Your task to perform on an android device: Add "logitech g pro" to the cart on bestbuy.com Image 0: 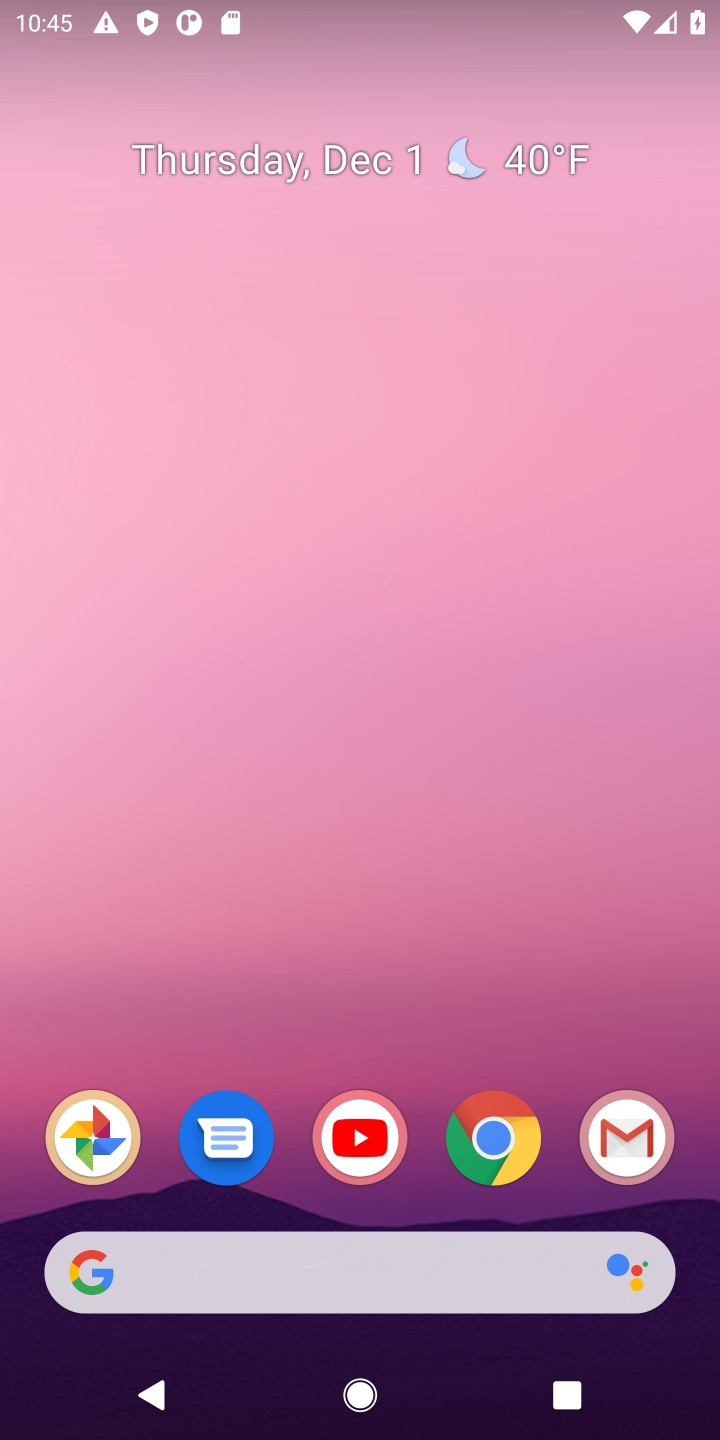
Step 0: drag from (407, 1144) to (355, 602)
Your task to perform on an android device: Add "logitech g pro" to the cart on bestbuy.com Image 1: 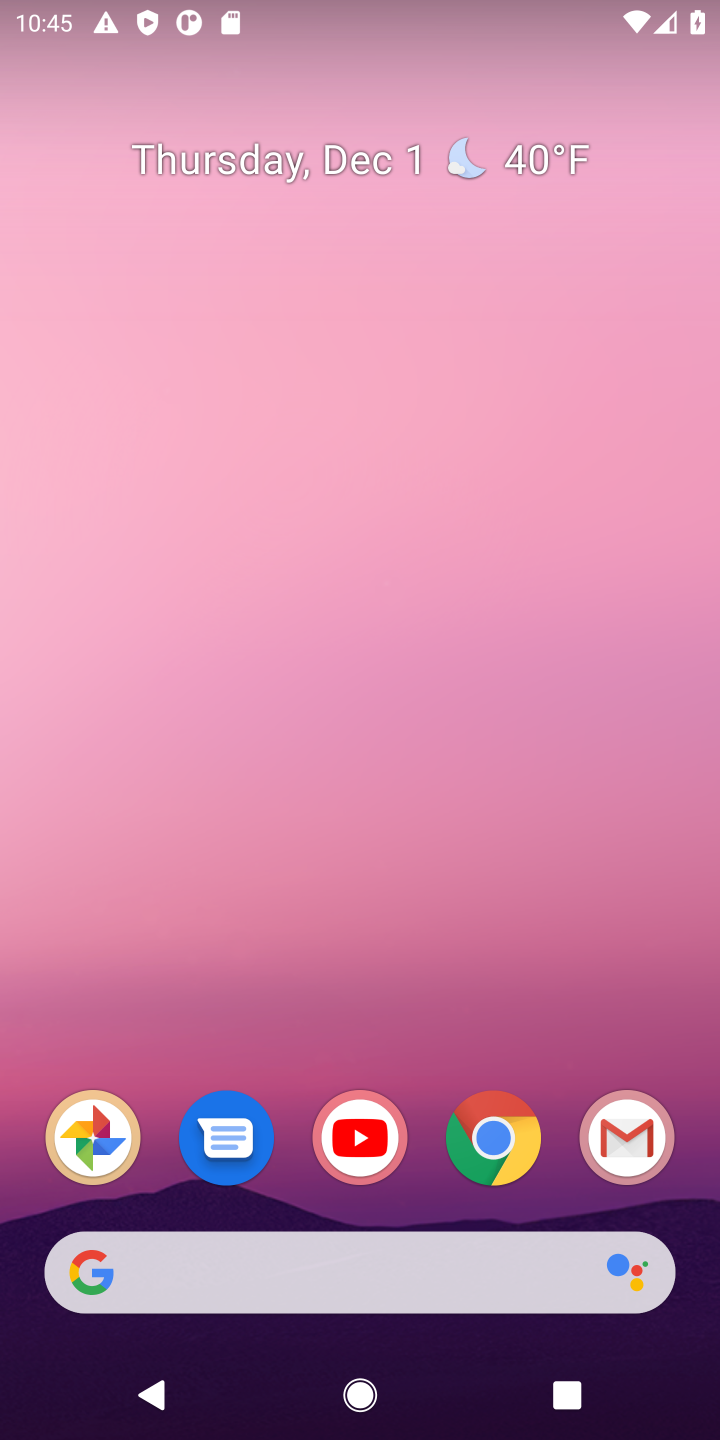
Step 1: click (516, 1140)
Your task to perform on an android device: Add "logitech g pro" to the cart on bestbuy.com Image 2: 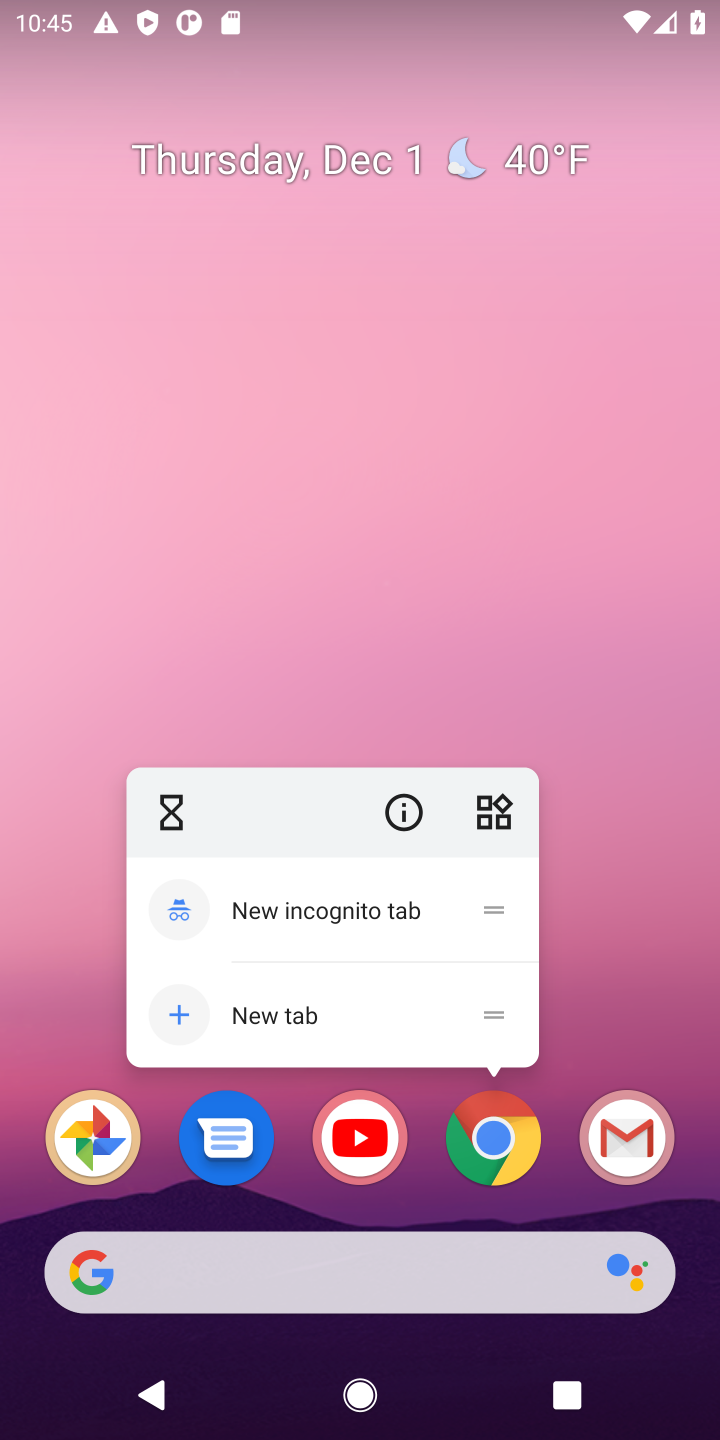
Step 2: click (484, 1148)
Your task to perform on an android device: Add "logitech g pro" to the cart on bestbuy.com Image 3: 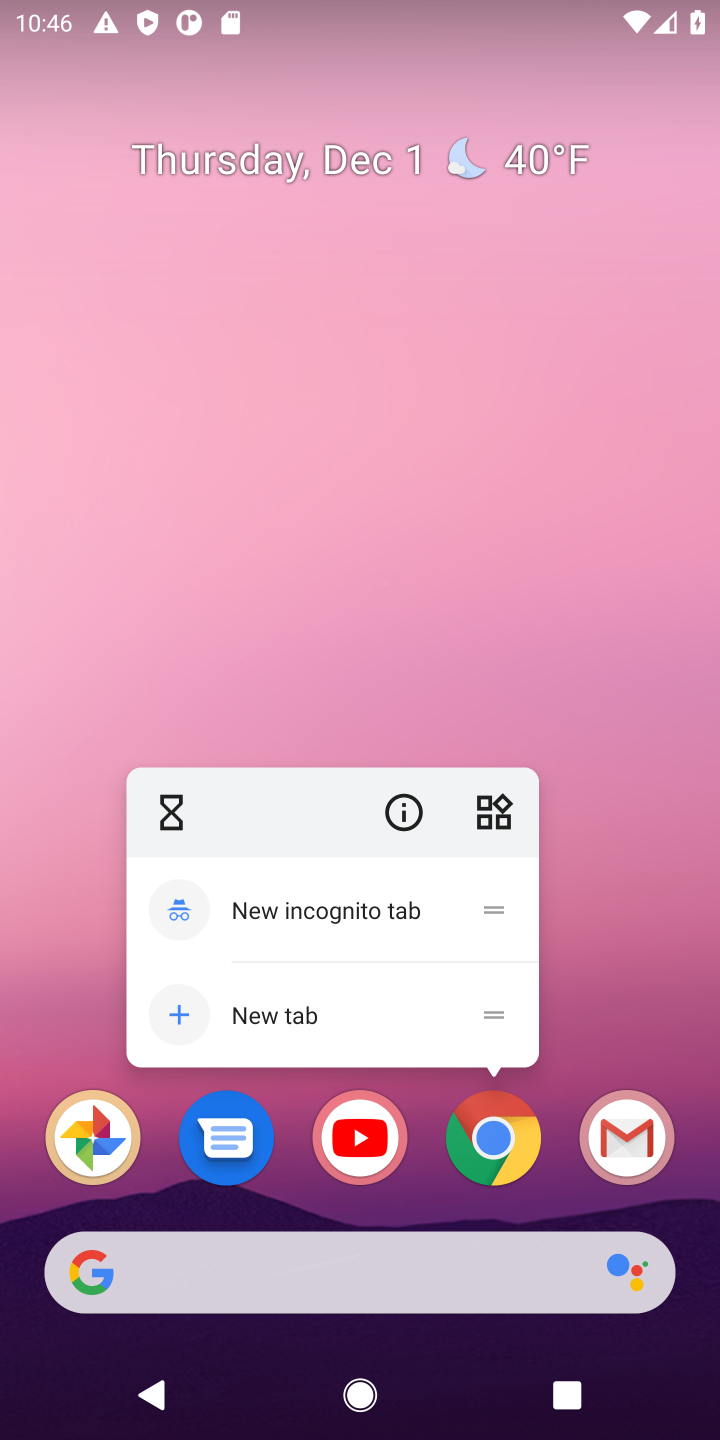
Step 3: click (484, 1148)
Your task to perform on an android device: Add "logitech g pro" to the cart on bestbuy.com Image 4: 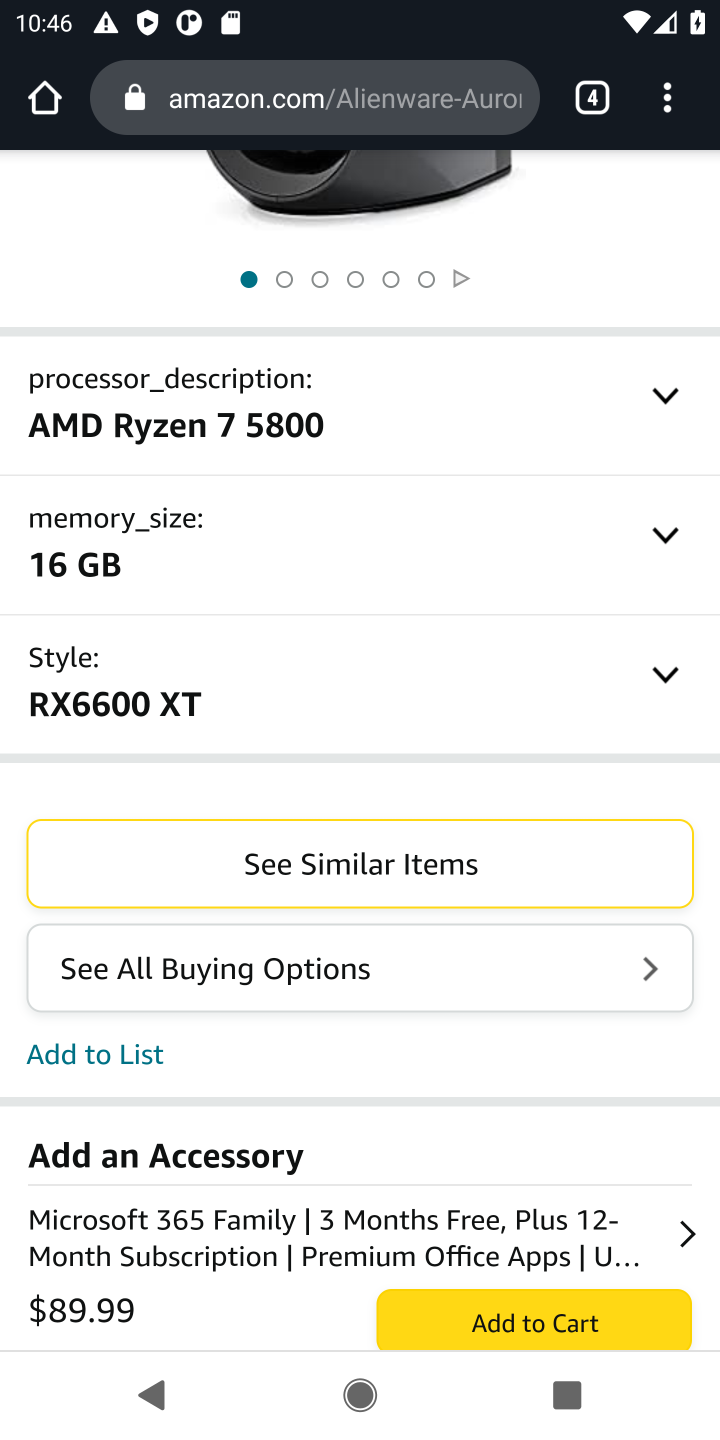
Step 4: click (280, 107)
Your task to perform on an android device: Add "logitech g pro" to the cart on bestbuy.com Image 5: 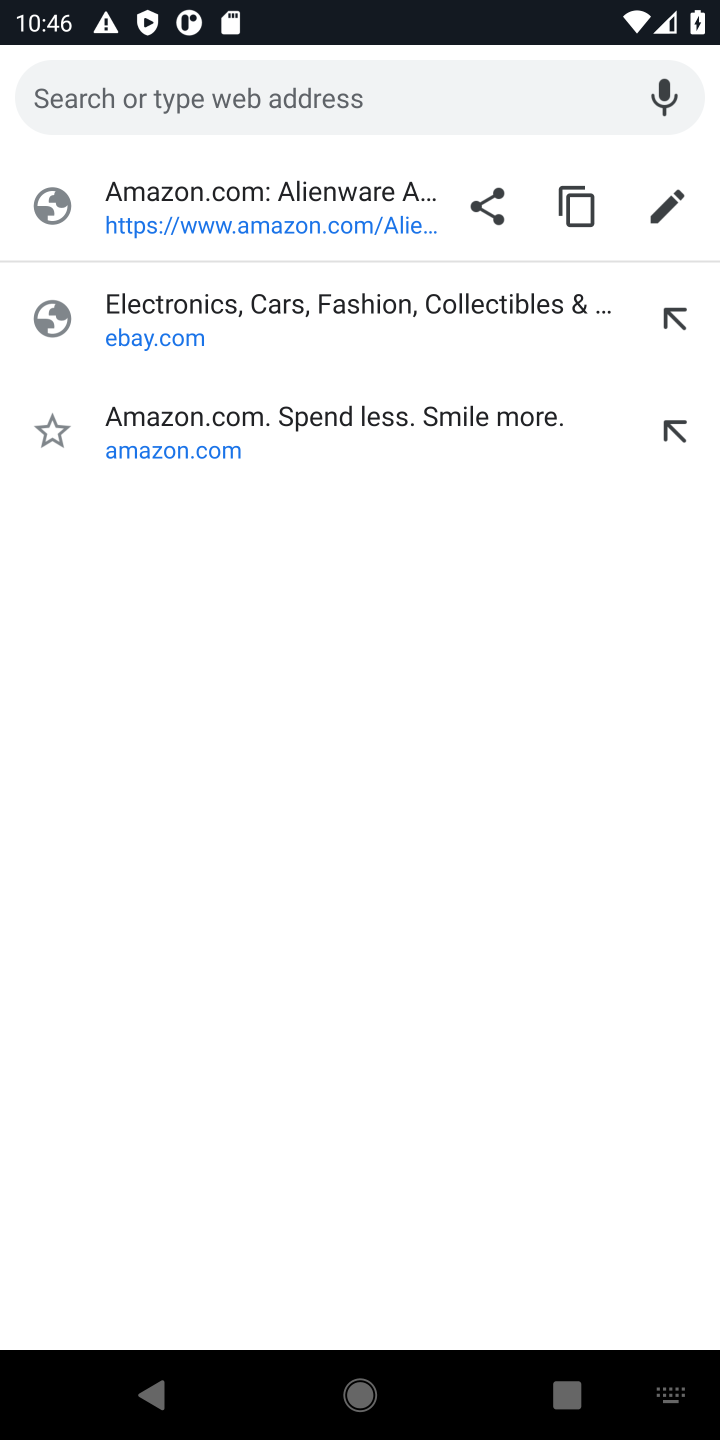
Step 5: type "bestbuy.com"
Your task to perform on an android device: Add "logitech g pro" to the cart on bestbuy.com Image 6: 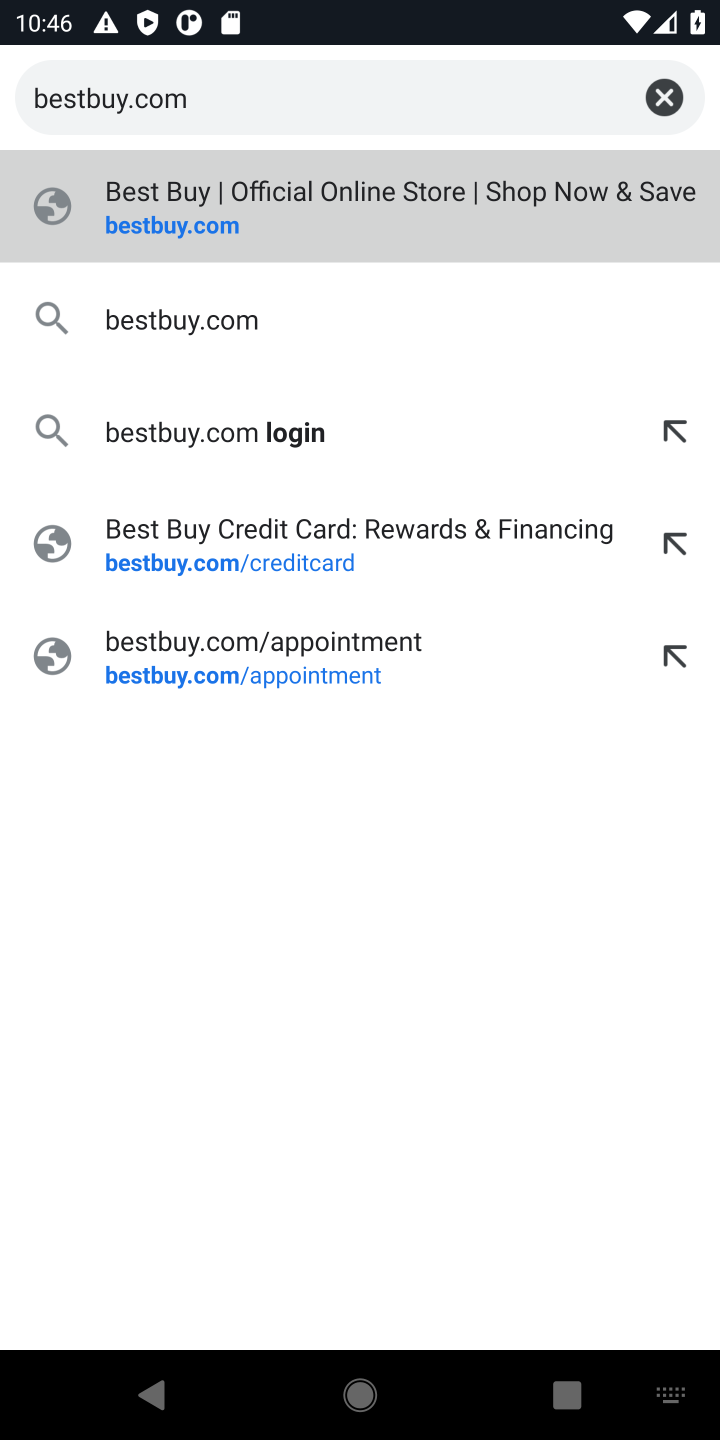
Step 6: click (241, 236)
Your task to perform on an android device: Add "logitech g pro" to the cart on bestbuy.com Image 7: 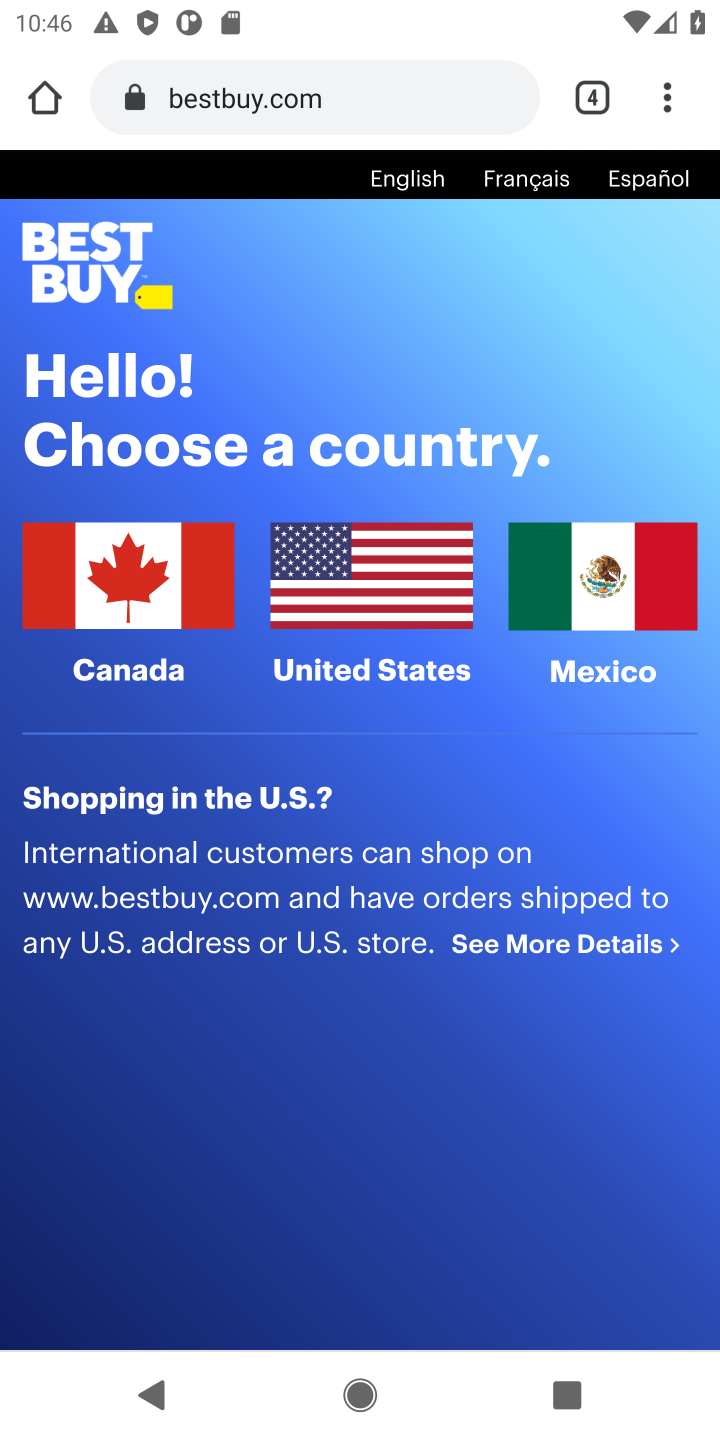
Step 7: click (362, 625)
Your task to perform on an android device: Add "logitech g pro" to the cart on bestbuy.com Image 8: 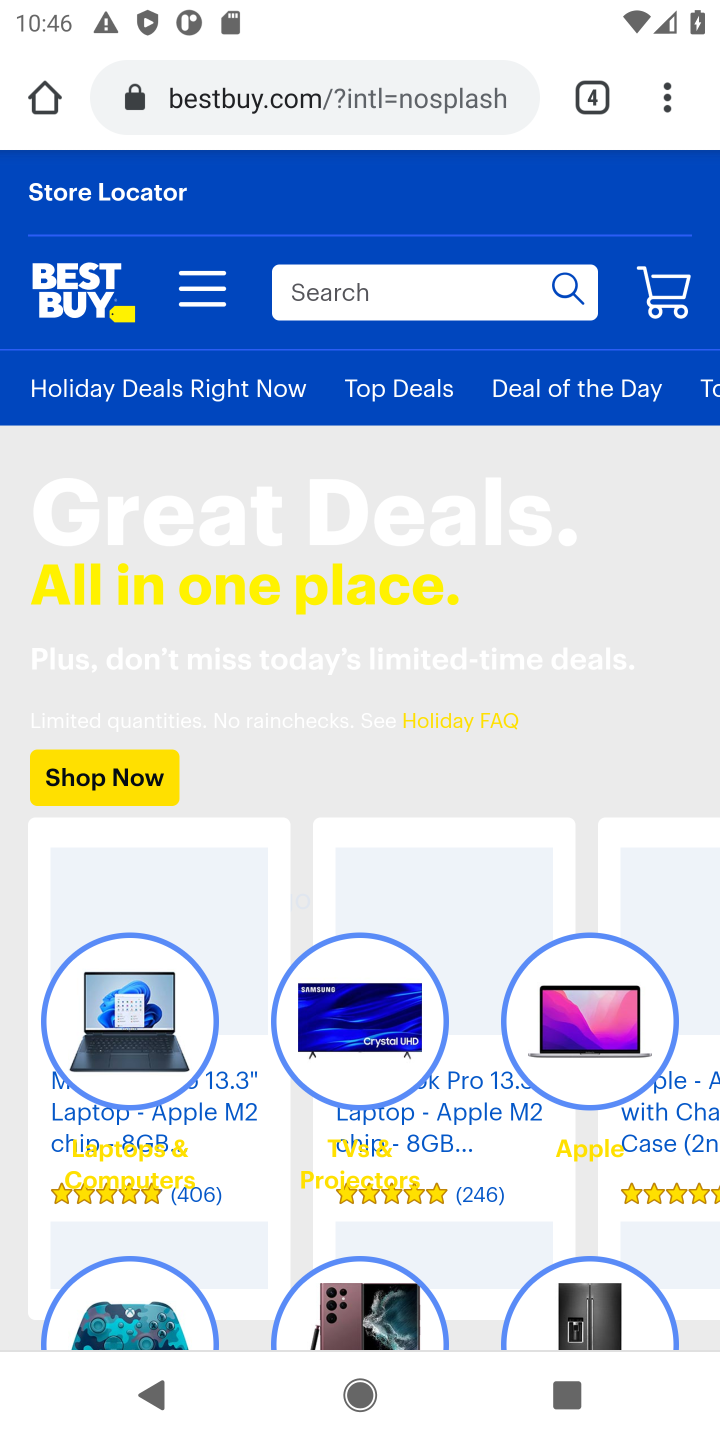
Step 8: click (449, 298)
Your task to perform on an android device: Add "logitech g pro" to the cart on bestbuy.com Image 9: 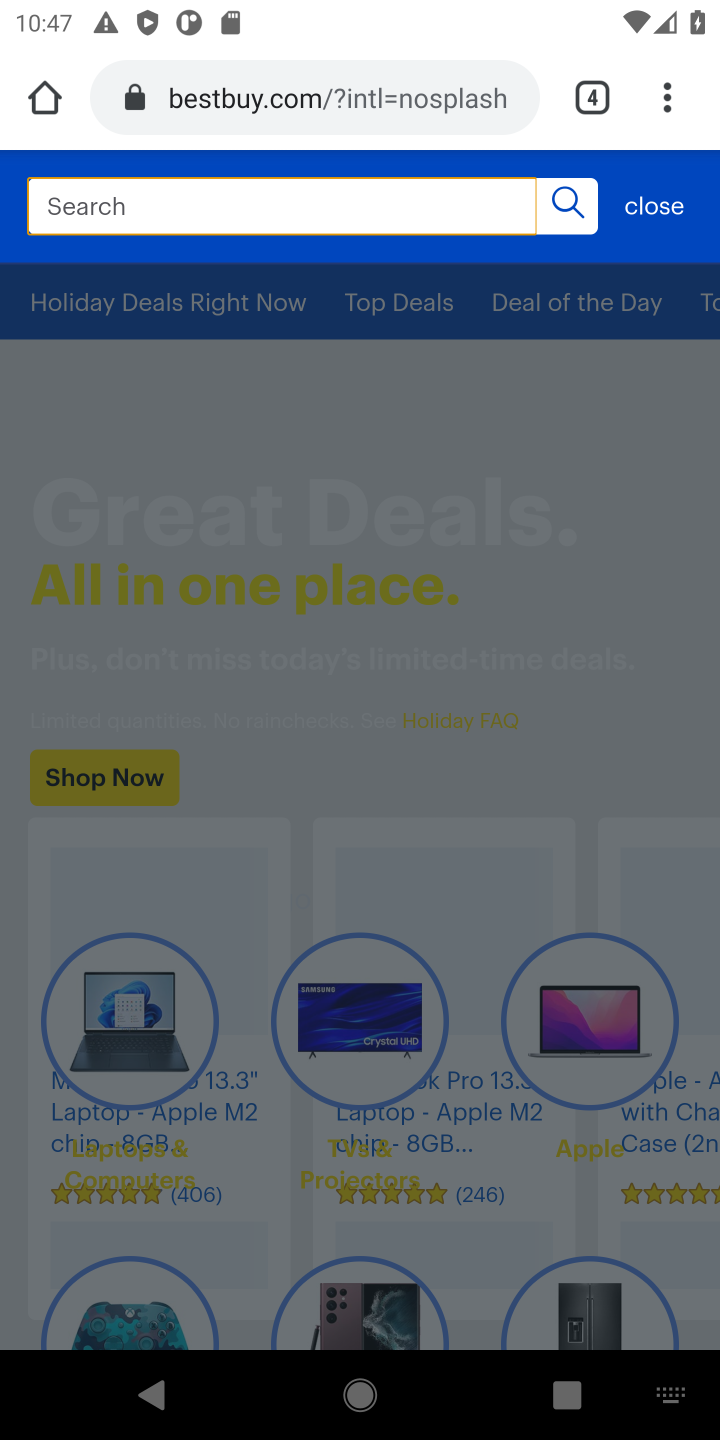
Step 9: type "logitech g pro"
Your task to perform on an android device: Add "logitech g pro" to the cart on bestbuy.com Image 10: 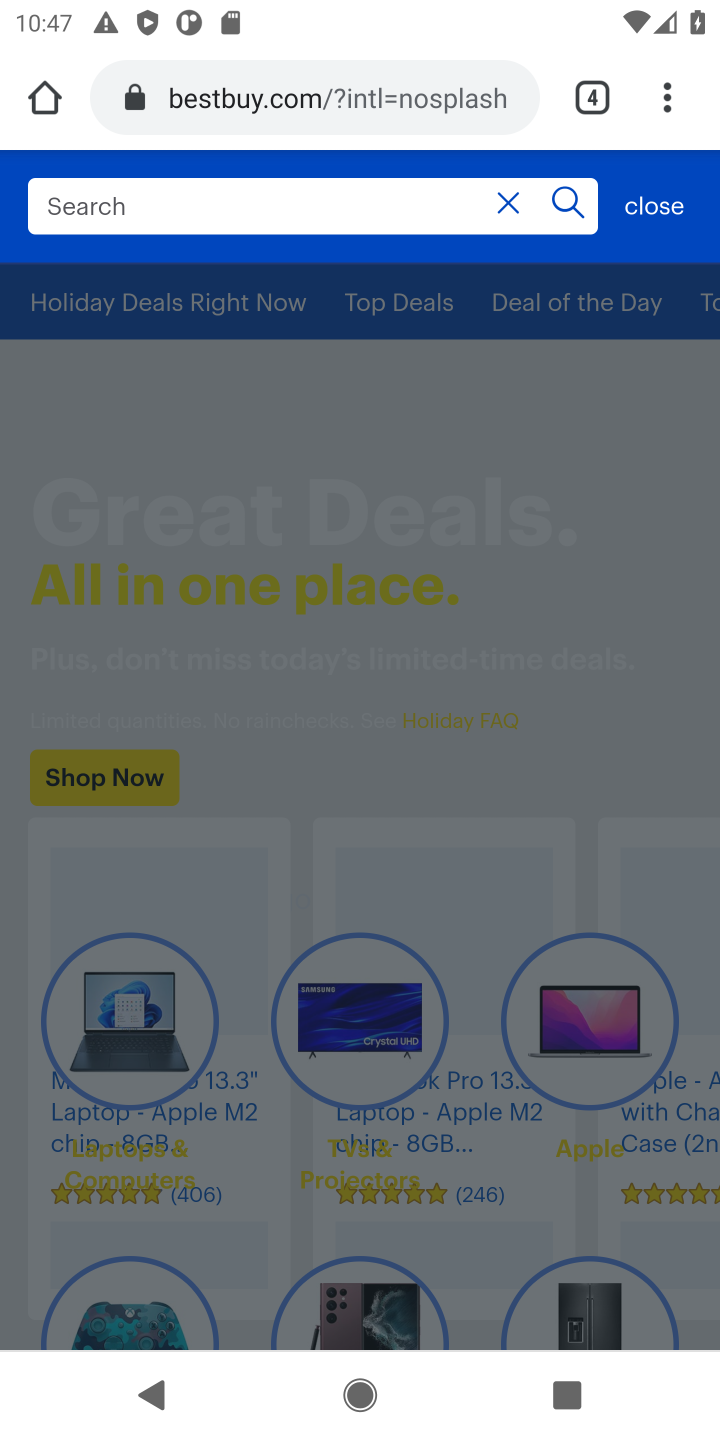
Step 10: click (255, 197)
Your task to perform on an android device: Add "logitech g pro" to the cart on bestbuy.com Image 11: 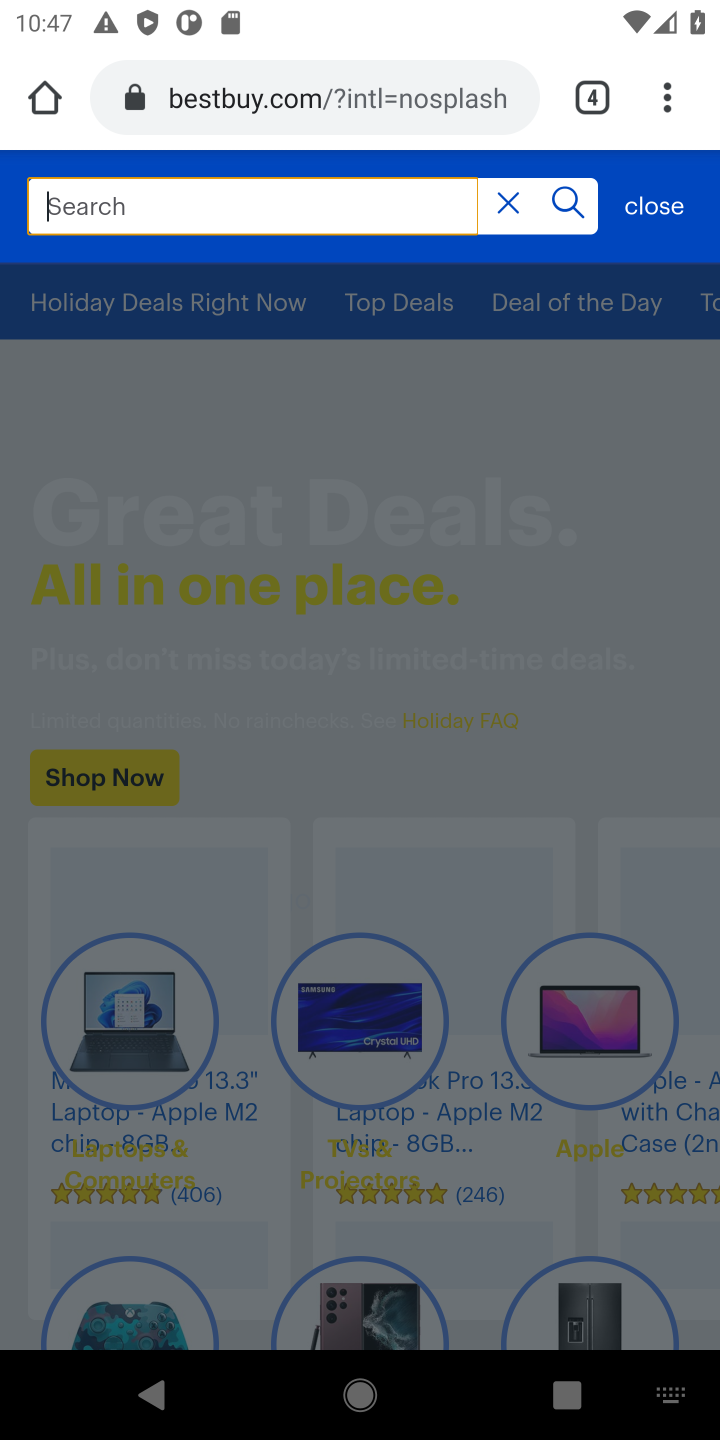
Step 11: type "logitech g pro"
Your task to perform on an android device: Add "logitech g pro" to the cart on bestbuy.com Image 12: 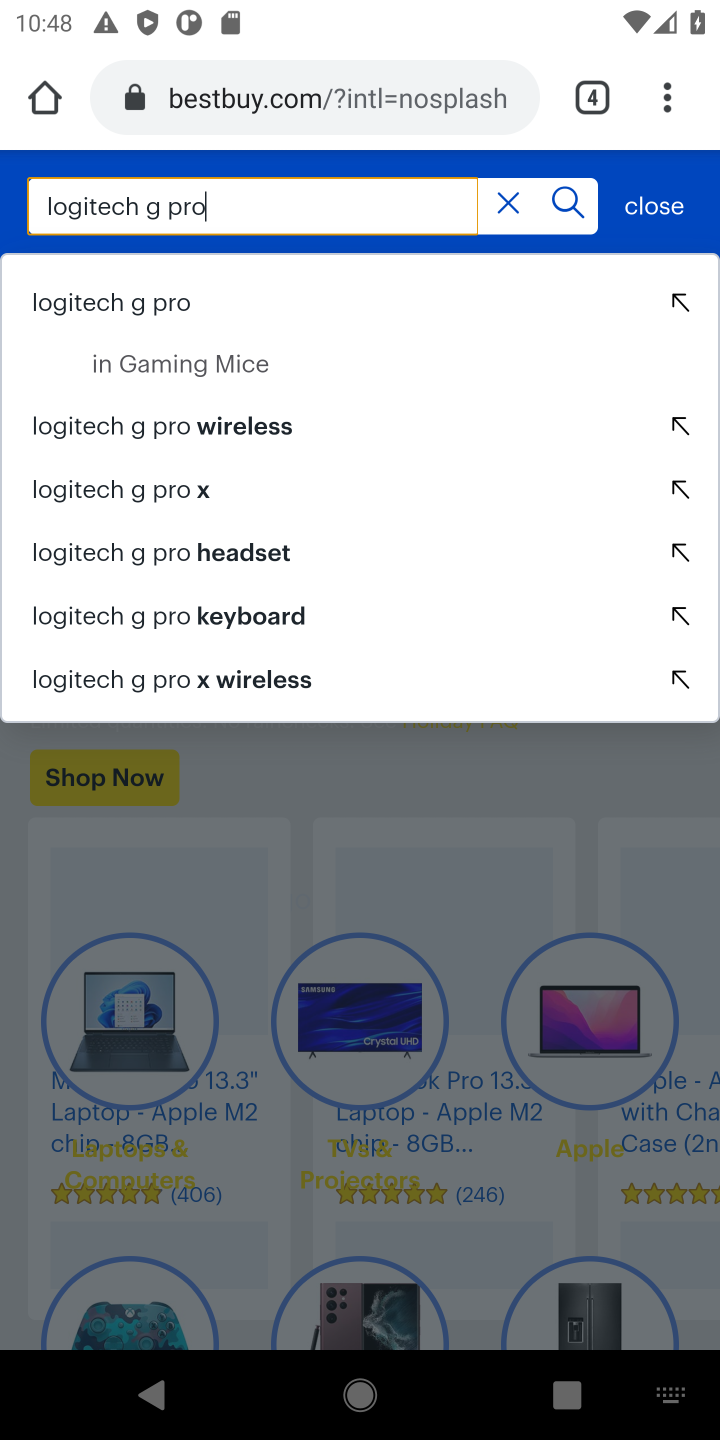
Step 12: click (153, 315)
Your task to perform on an android device: Add "logitech g pro" to the cart on bestbuy.com Image 13: 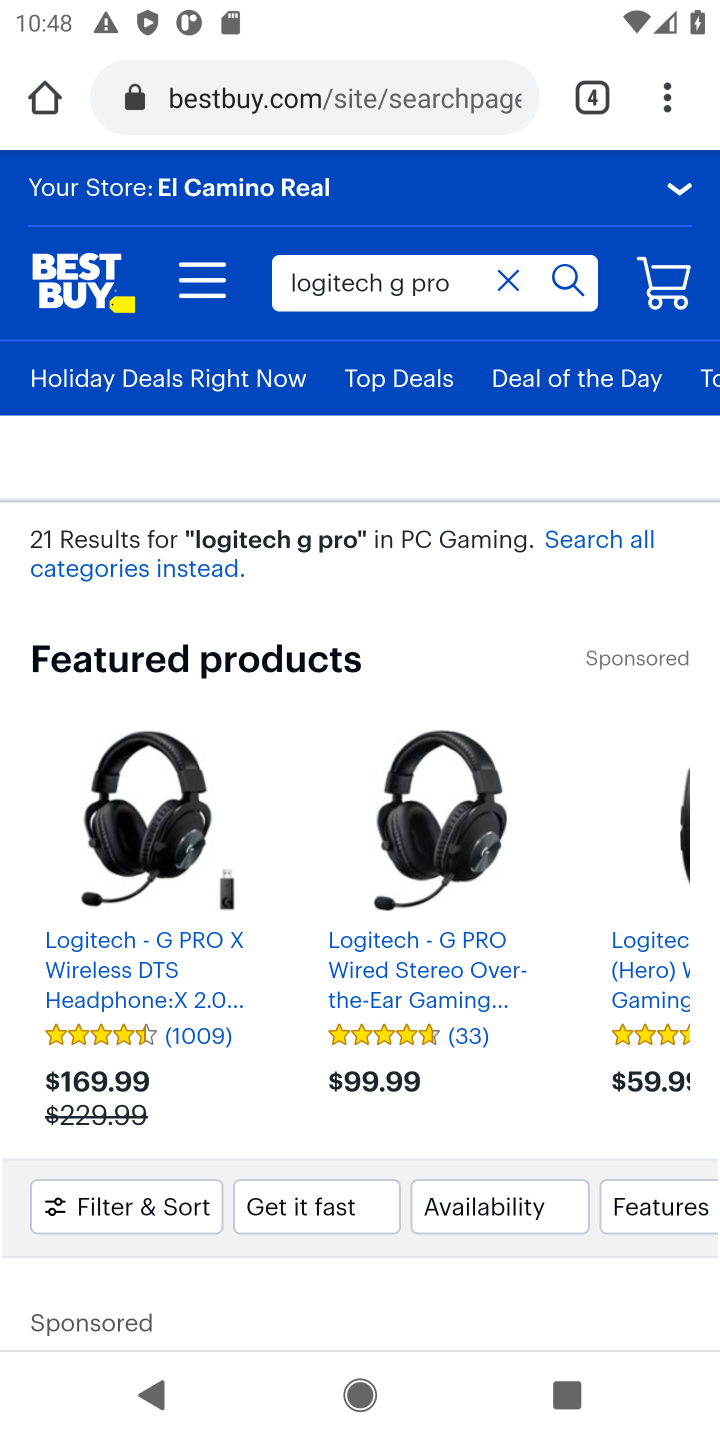
Step 13: drag from (427, 1005) to (428, 646)
Your task to perform on an android device: Add "logitech g pro" to the cart on bestbuy.com Image 14: 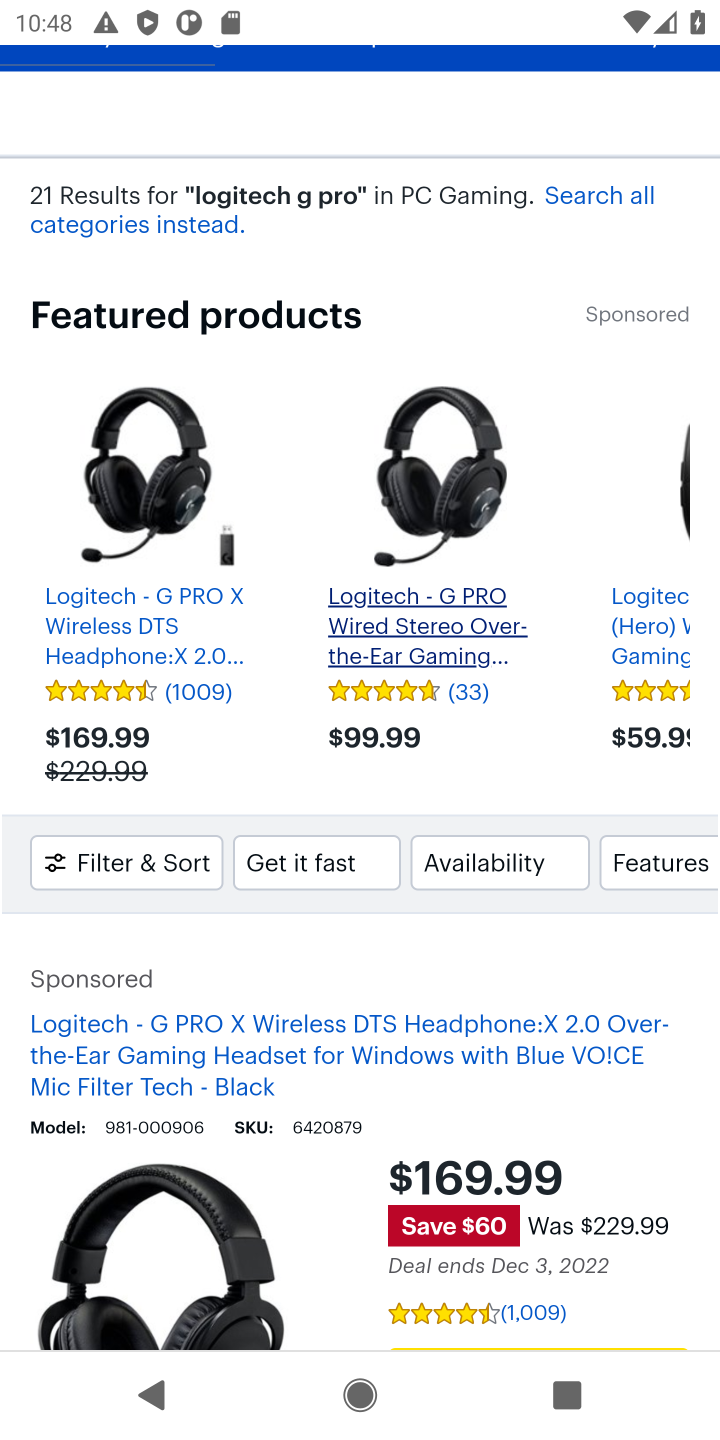
Step 14: click (366, 1264)
Your task to perform on an android device: Add "logitech g pro" to the cart on bestbuy.com Image 15: 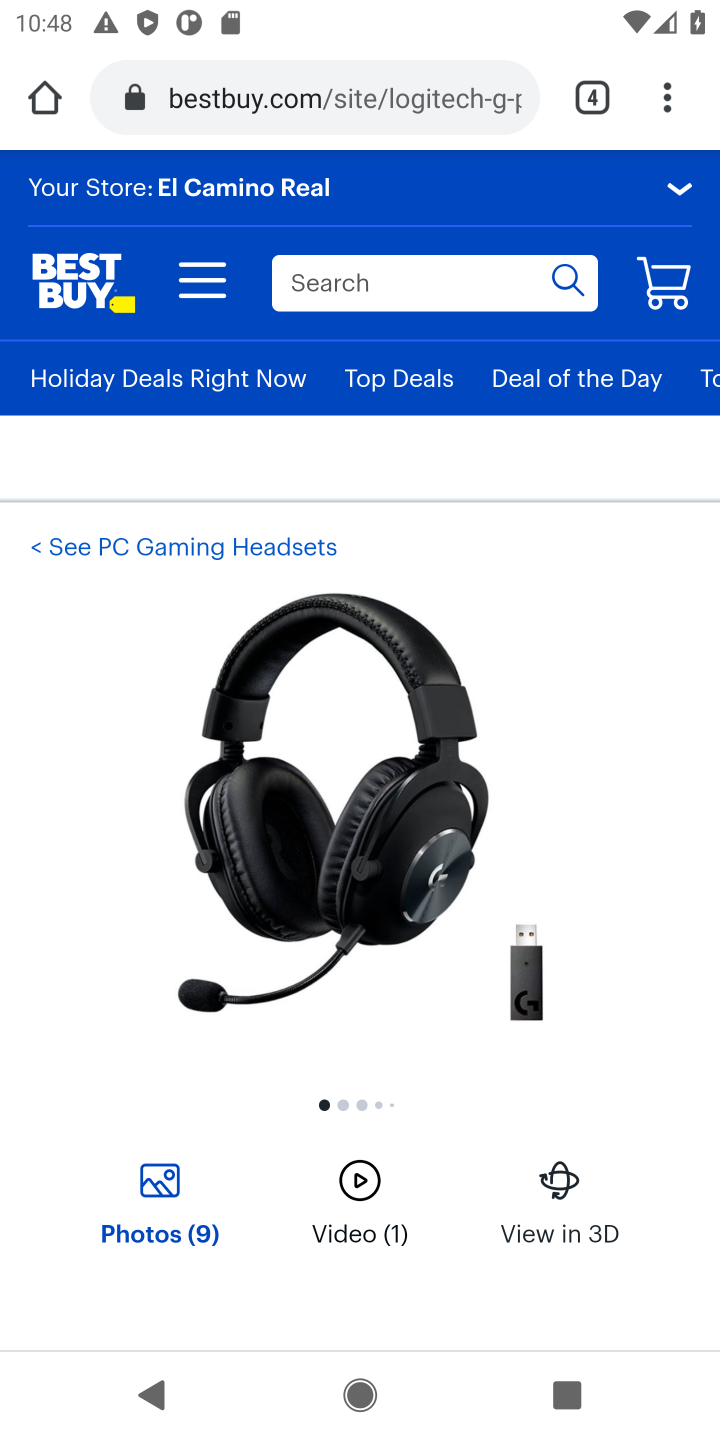
Step 15: drag from (454, 1124) to (441, 364)
Your task to perform on an android device: Add "logitech g pro" to the cart on bestbuy.com Image 16: 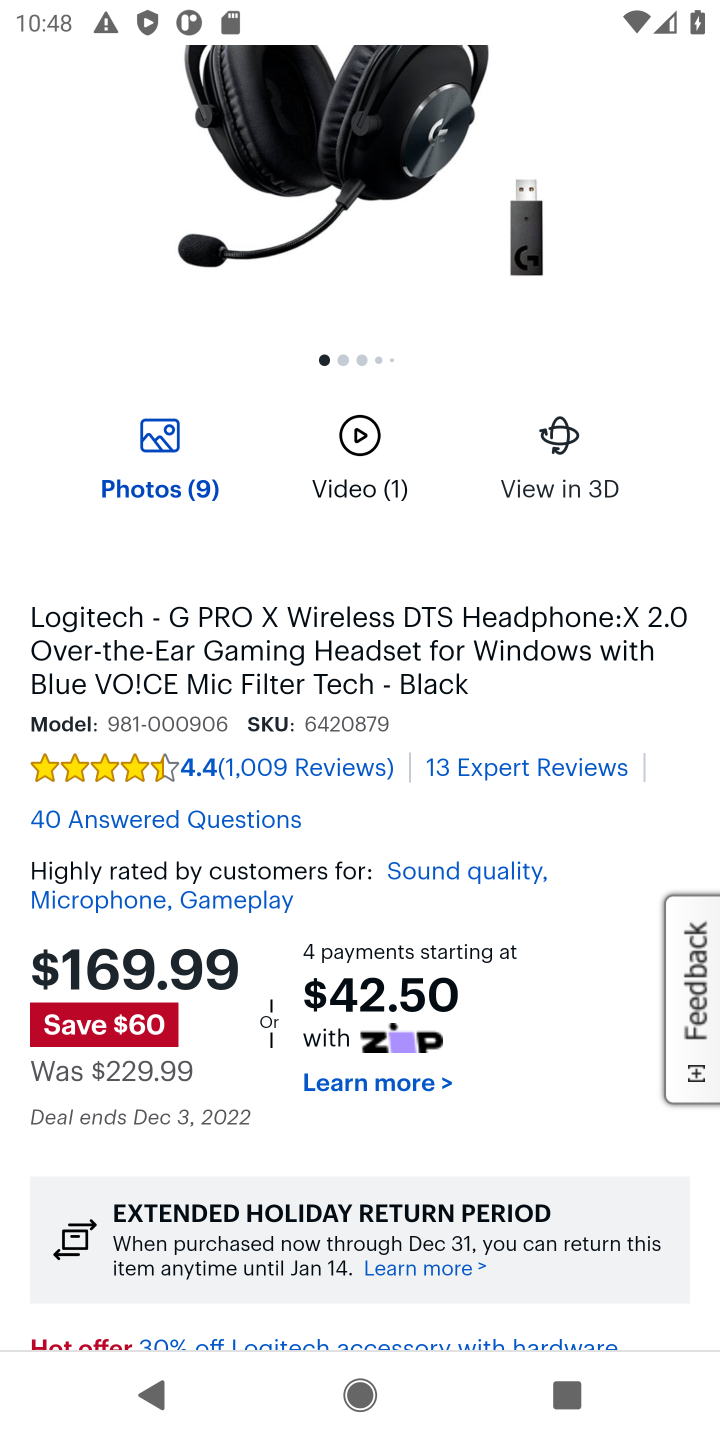
Step 16: drag from (430, 899) to (421, 417)
Your task to perform on an android device: Add "logitech g pro" to the cart on bestbuy.com Image 17: 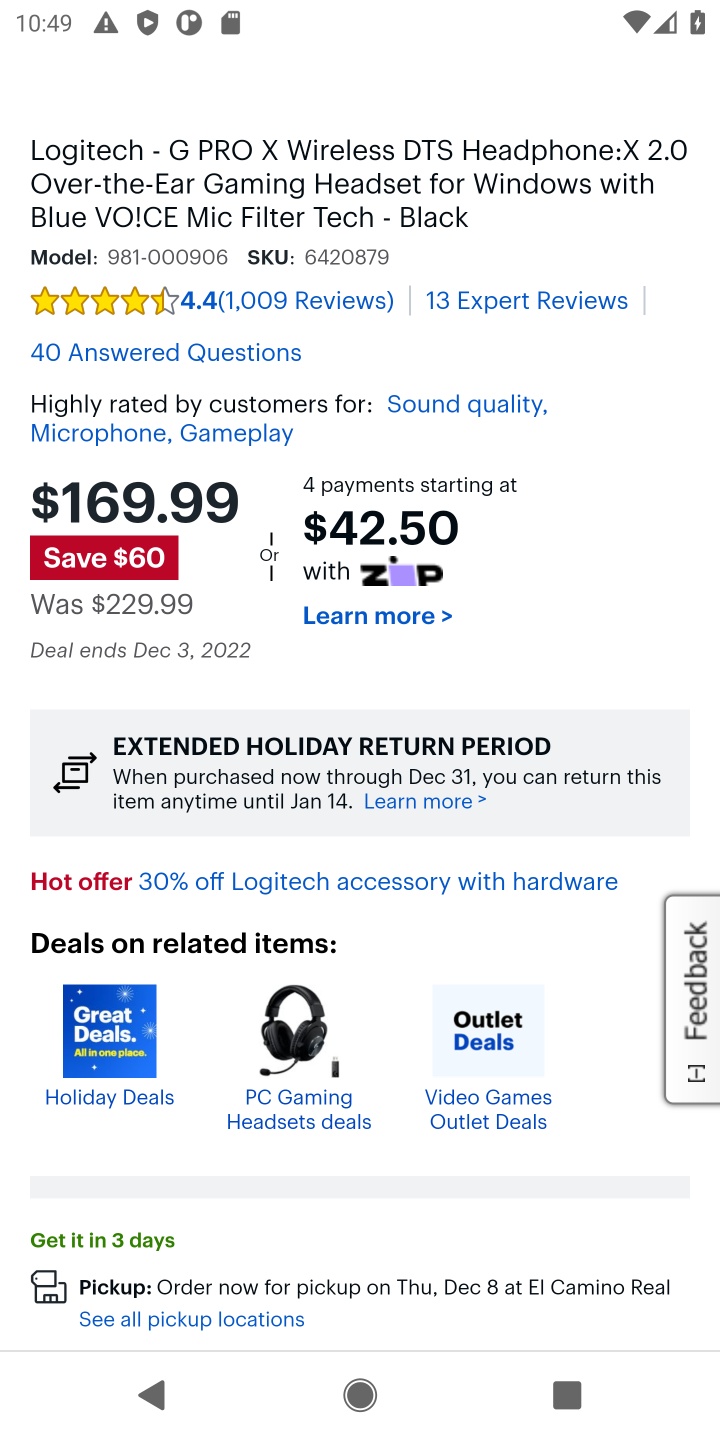
Step 17: drag from (453, 838) to (457, 288)
Your task to perform on an android device: Add "logitech g pro" to the cart on bestbuy.com Image 18: 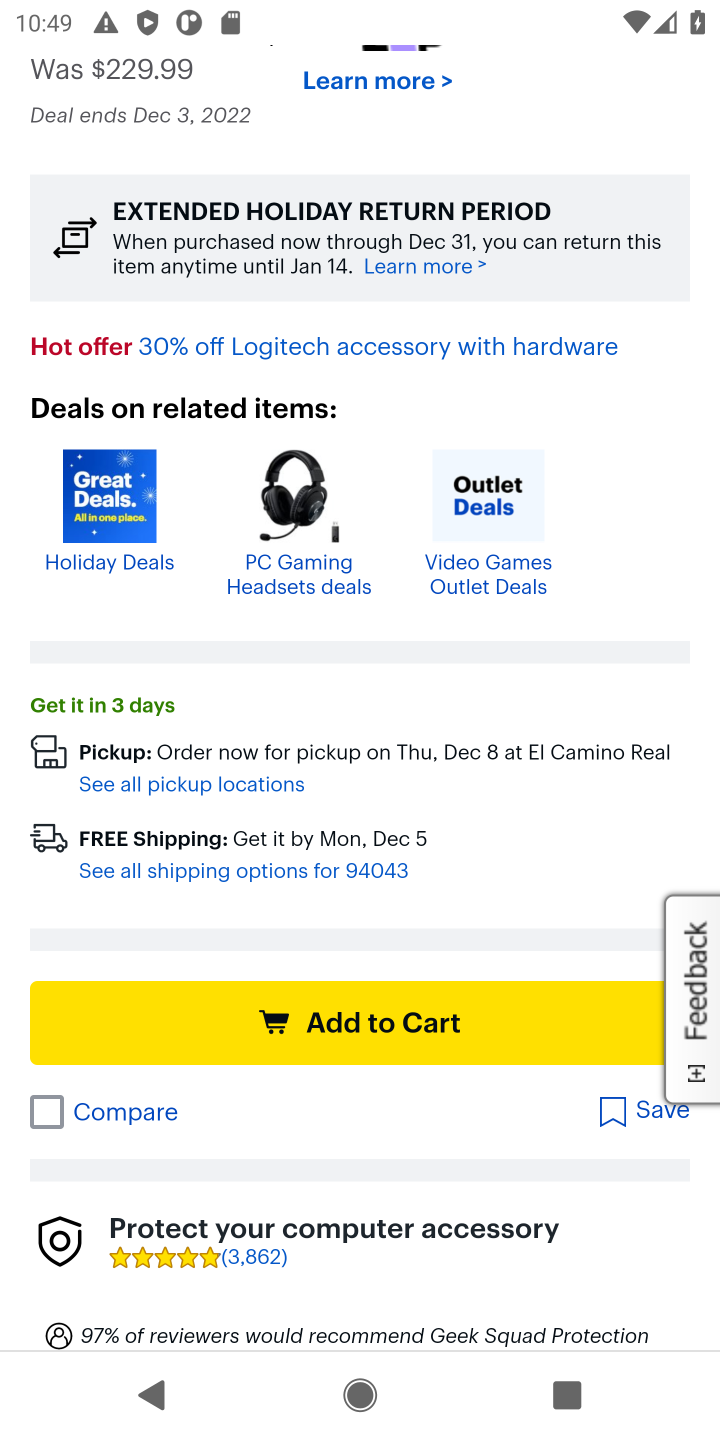
Step 18: click (423, 1034)
Your task to perform on an android device: Add "logitech g pro" to the cart on bestbuy.com Image 19: 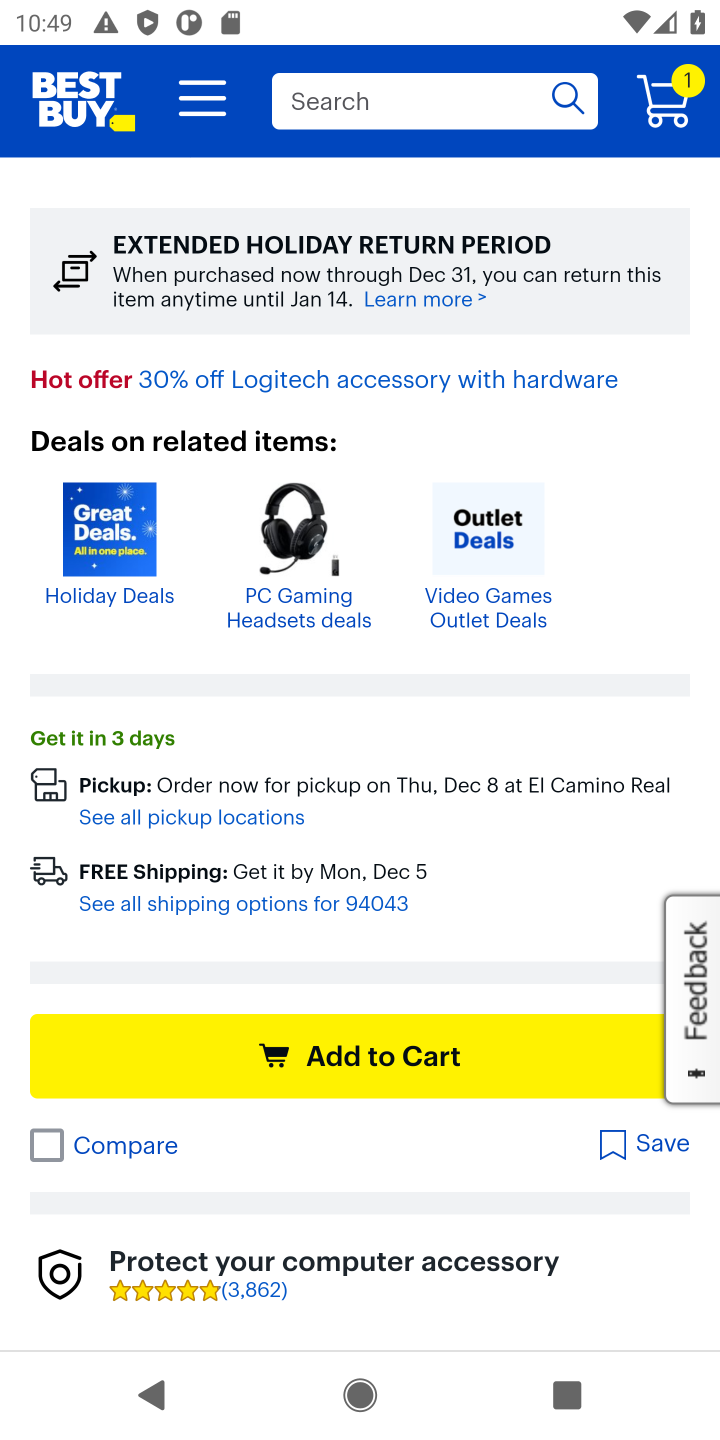
Step 19: task complete